Your task to perform on an android device: turn off location Image 0: 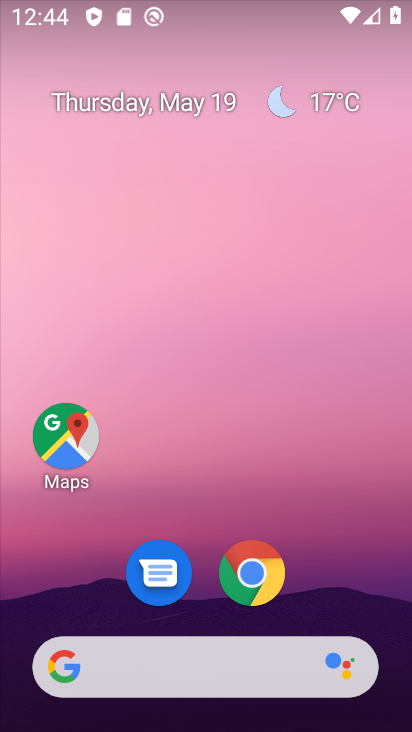
Step 0: drag from (239, 570) to (343, 46)
Your task to perform on an android device: turn off location Image 1: 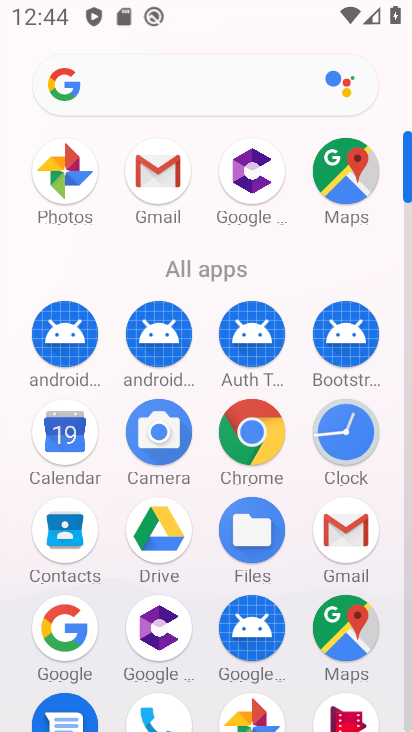
Step 1: drag from (227, 604) to (352, 89)
Your task to perform on an android device: turn off location Image 2: 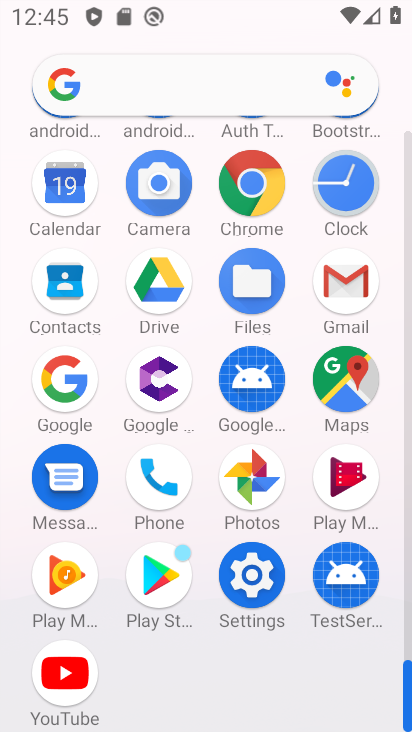
Step 2: click (251, 569)
Your task to perform on an android device: turn off location Image 3: 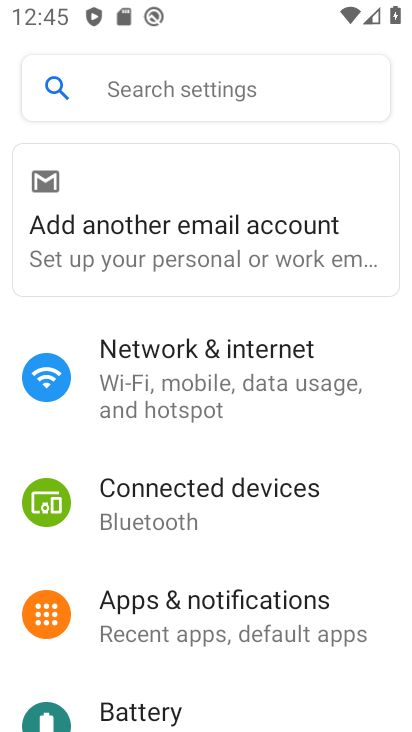
Step 3: drag from (160, 666) to (286, 123)
Your task to perform on an android device: turn off location Image 4: 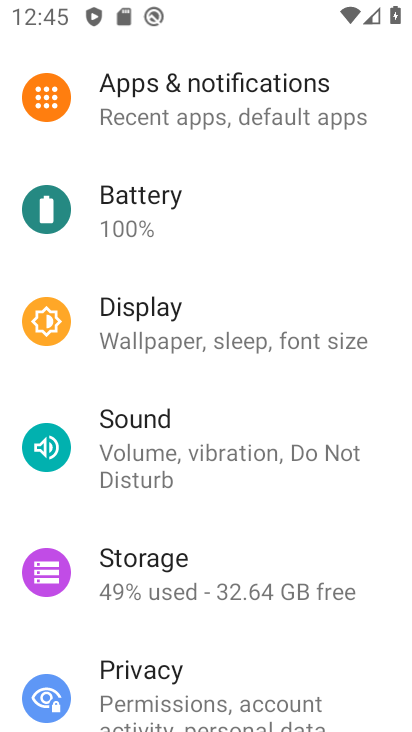
Step 4: drag from (188, 588) to (260, 232)
Your task to perform on an android device: turn off location Image 5: 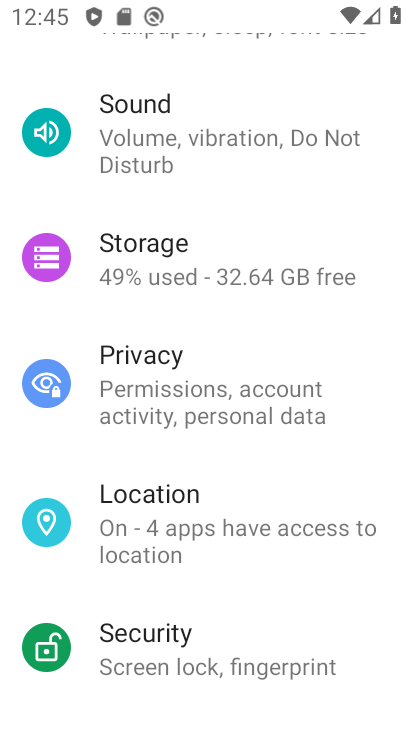
Step 5: click (165, 528)
Your task to perform on an android device: turn off location Image 6: 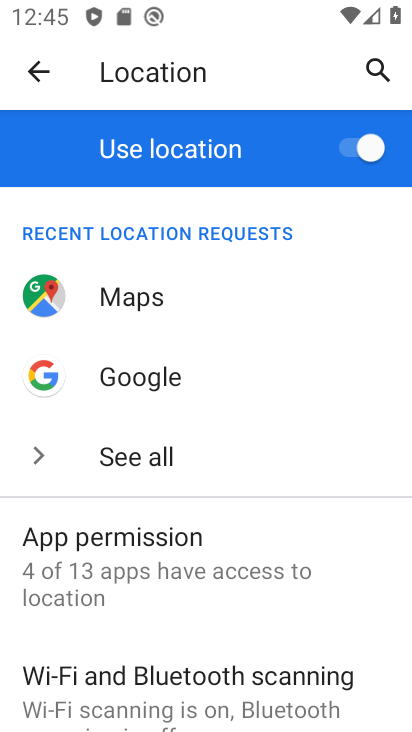
Step 6: click (355, 147)
Your task to perform on an android device: turn off location Image 7: 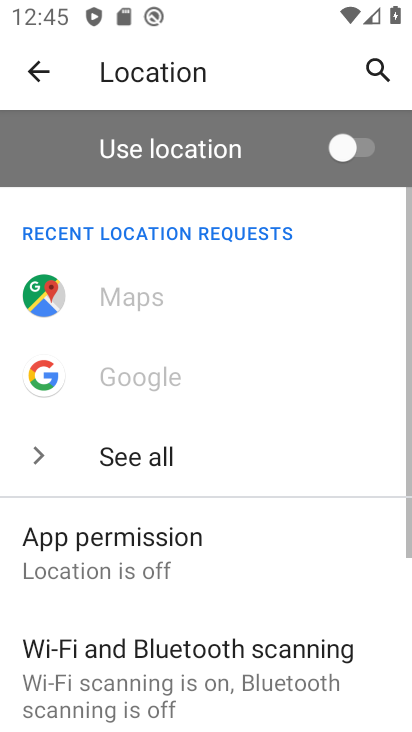
Step 7: task complete